Your task to perform on an android device: open device folders in google photos Image 0: 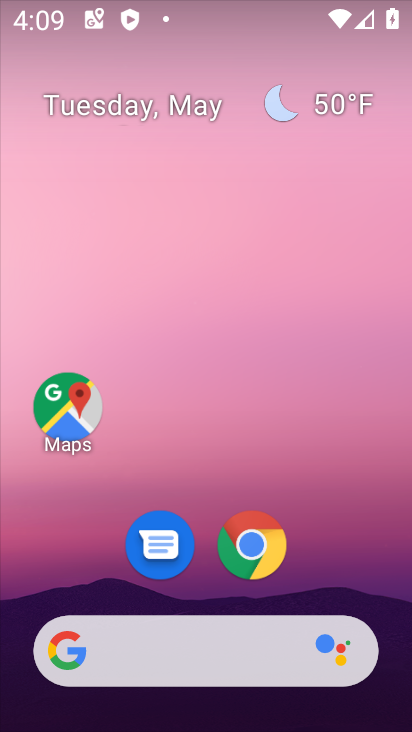
Step 0: drag from (211, 581) to (224, 217)
Your task to perform on an android device: open device folders in google photos Image 1: 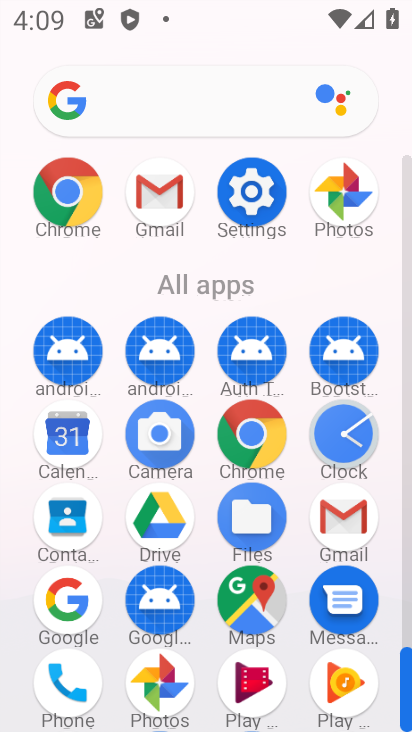
Step 1: click (163, 673)
Your task to perform on an android device: open device folders in google photos Image 2: 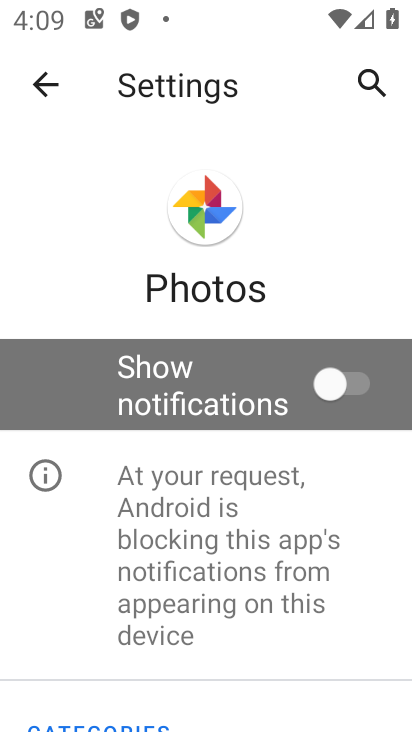
Step 2: click (45, 68)
Your task to perform on an android device: open device folders in google photos Image 3: 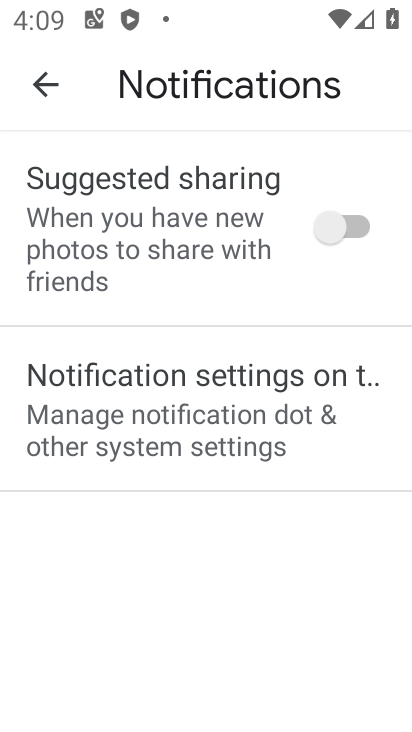
Step 3: click (43, 92)
Your task to perform on an android device: open device folders in google photos Image 4: 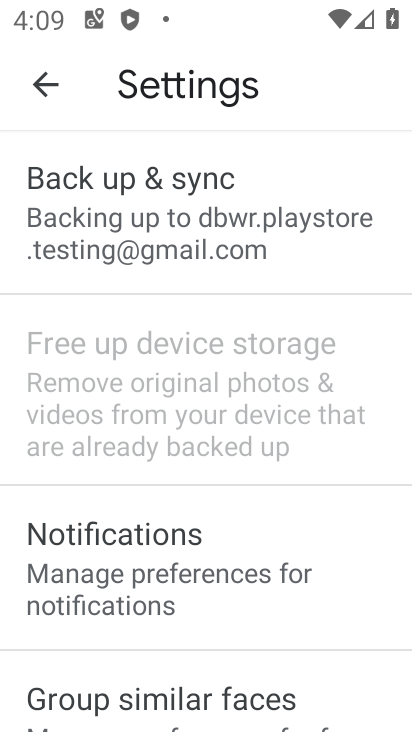
Step 4: click (50, 94)
Your task to perform on an android device: open device folders in google photos Image 5: 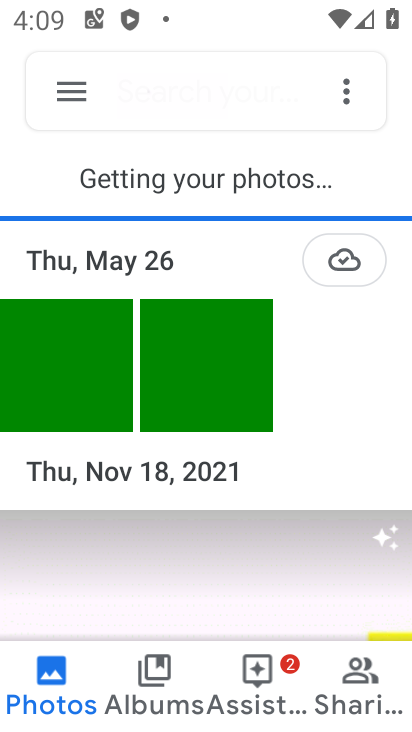
Step 5: click (67, 96)
Your task to perform on an android device: open device folders in google photos Image 6: 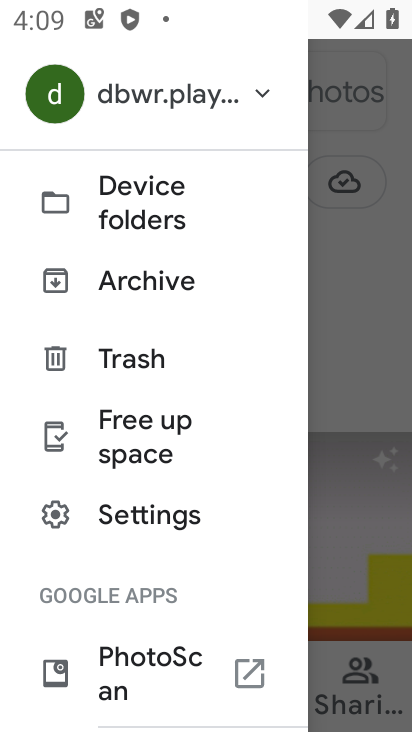
Step 6: click (116, 203)
Your task to perform on an android device: open device folders in google photos Image 7: 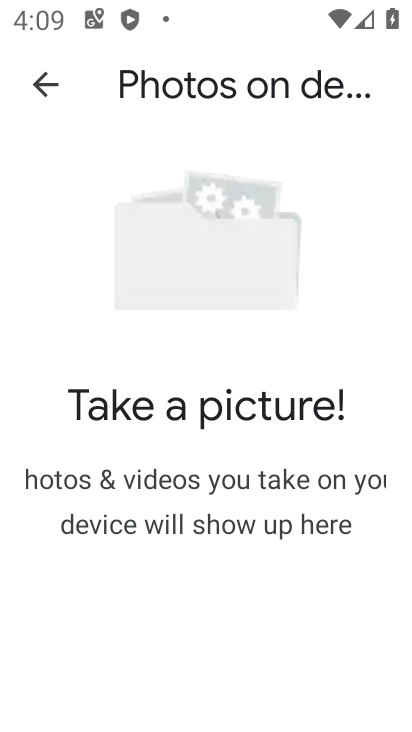
Step 7: task complete